Your task to perform on an android device: change the clock display to show seconds Image 0: 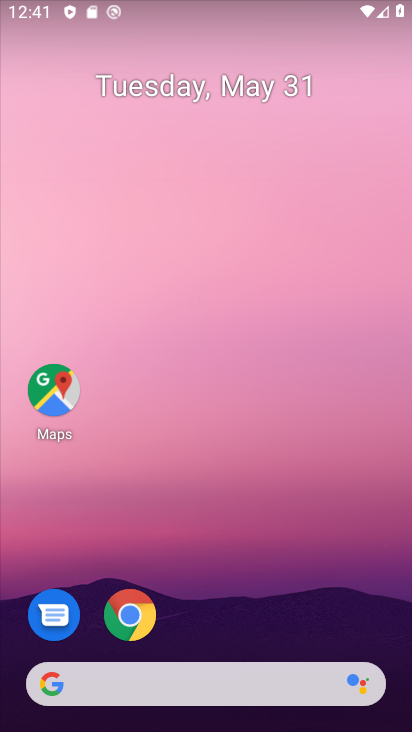
Step 0: drag from (315, 580) to (274, 243)
Your task to perform on an android device: change the clock display to show seconds Image 1: 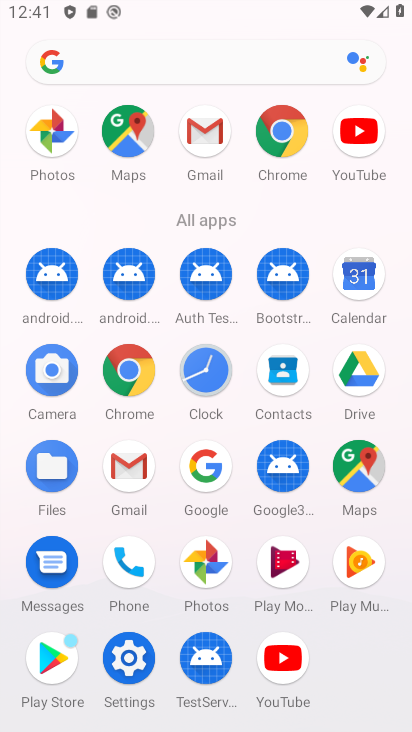
Step 1: click (183, 386)
Your task to perform on an android device: change the clock display to show seconds Image 2: 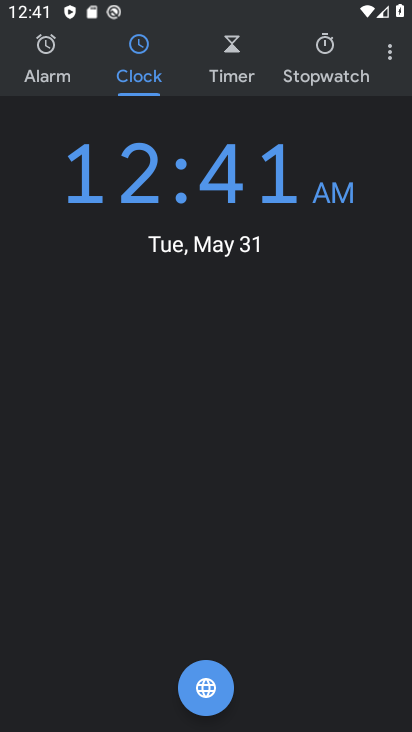
Step 2: click (397, 76)
Your task to perform on an android device: change the clock display to show seconds Image 3: 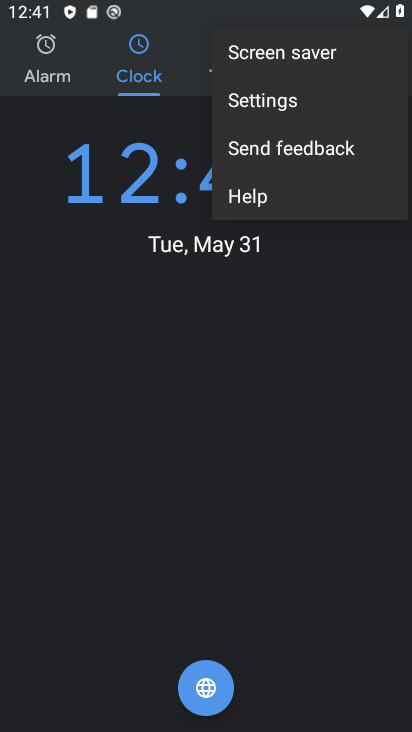
Step 3: click (293, 107)
Your task to perform on an android device: change the clock display to show seconds Image 4: 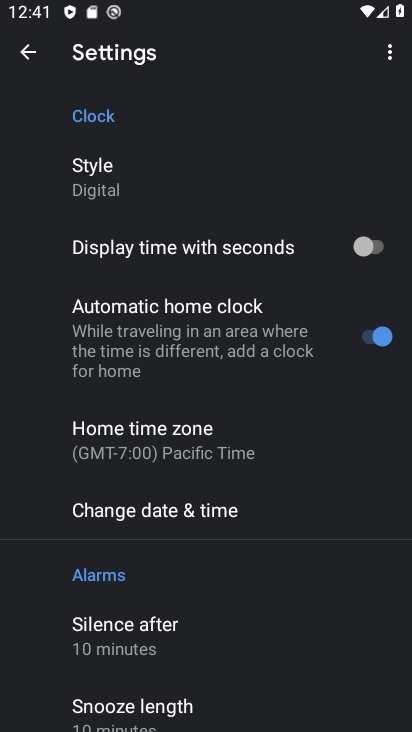
Step 4: click (370, 245)
Your task to perform on an android device: change the clock display to show seconds Image 5: 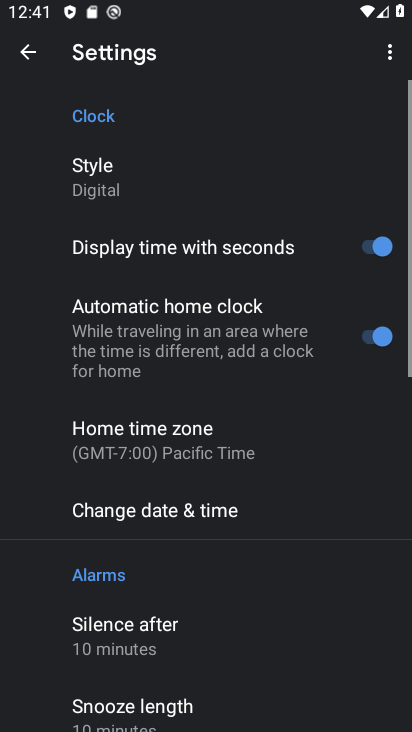
Step 5: task complete